Your task to perform on an android device: Open calendar and show me the first week of next month Image 0: 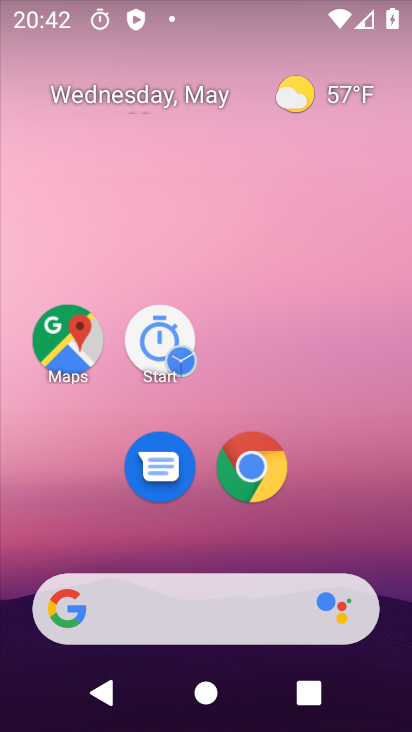
Step 0: drag from (343, 657) to (160, 146)
Your task to perform on an android device: Open calendar and show me the first week of next month Image 1: 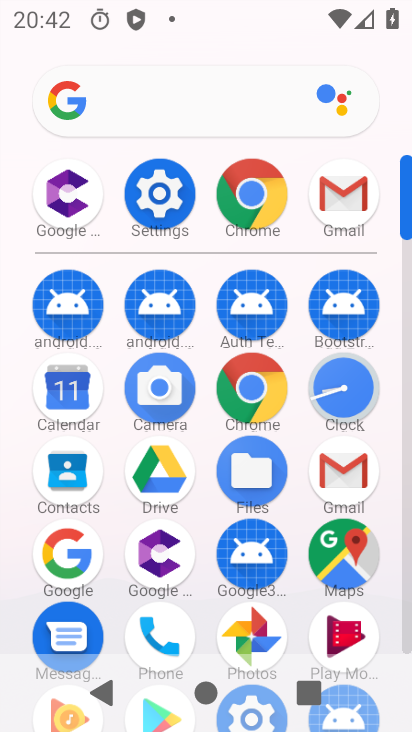
Step 1: click (61, 396)
Your task to perform on an android device: Open calendar and show me the first week of next month Image 2: 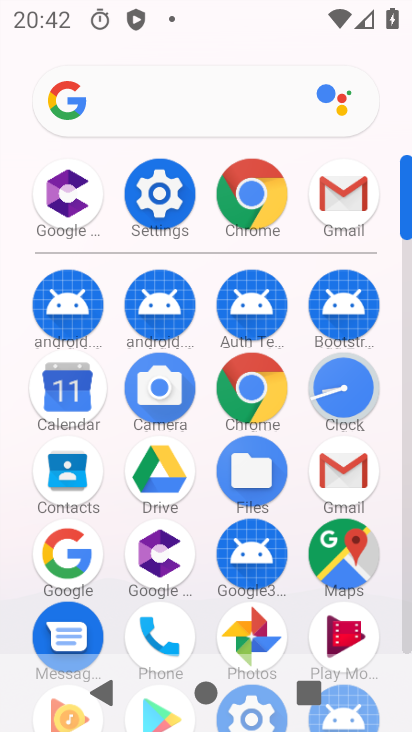
Step 2: click (63, 395)
Your task to perform on an android device: Open calendar and show me the first week of next month Image 3: 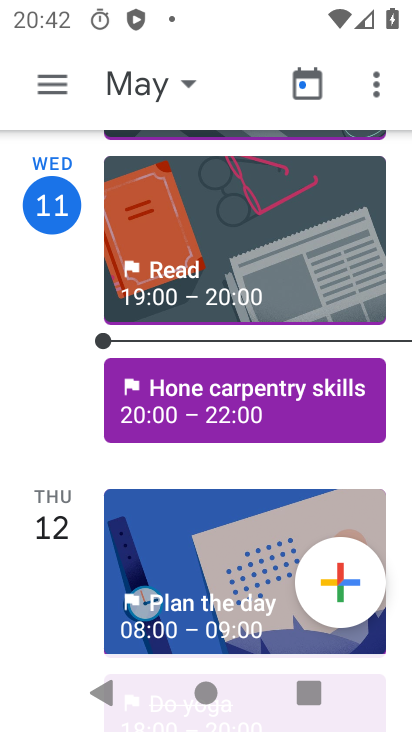
Step 3: click (185, 87)
Your task to perform on an android device: Open calendar and show me the first week of next month Image 4: 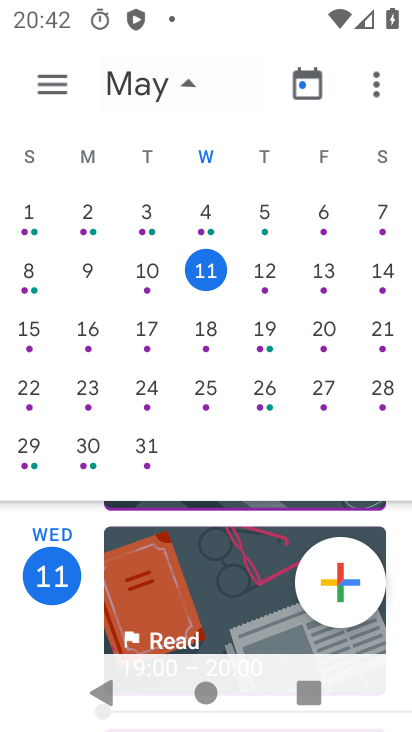
Step 4: click (184, 86)
Your task to perform on an android device: Open calendar and show me the first week of next month Image 5: 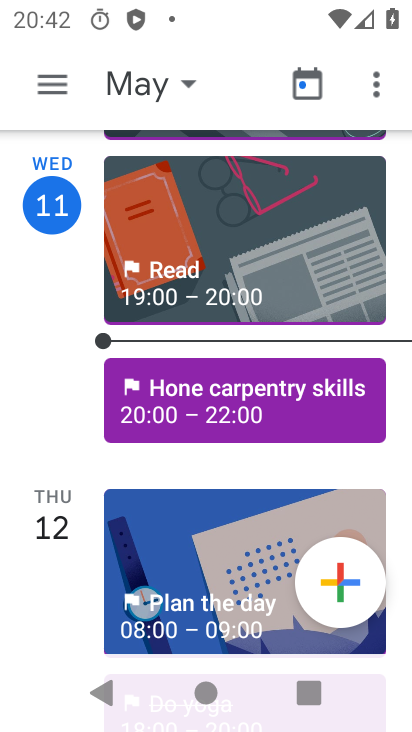
Step 5: click (181, 84)
Your task to perform on an android device: Open calendar and show me the first week of next month Image 6: 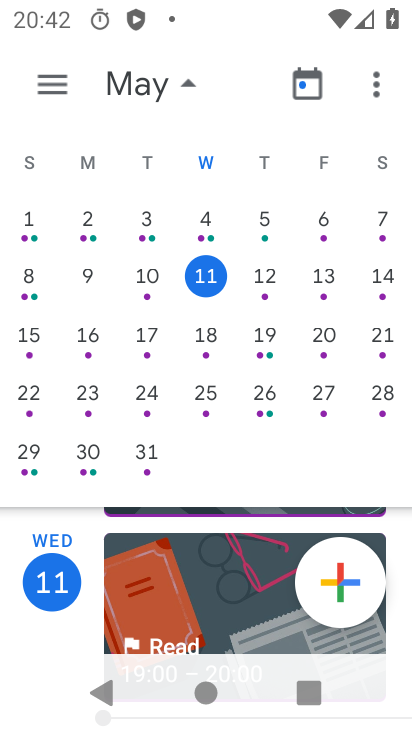
Step 6: task complete